Your task to perform on an android device: Clear the shopping cart on newegg.com. Search for "apple airpods pro" on newegg.com, select the first entry, add it to the cart, then select checkout. Image 0: 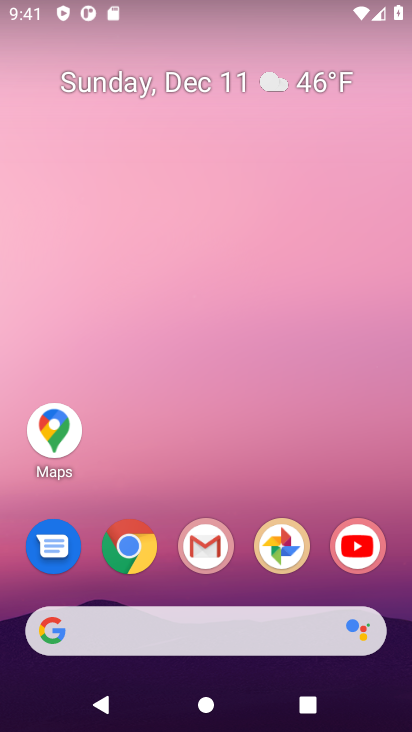
Step 0: click (132, 551)
Your task to perform on an android device: Clear the shopping cart on newegg.com. Search for "apple airpods pro" on newegg.com, select the first entry, add it to the cart, then select checkout. Image 1: 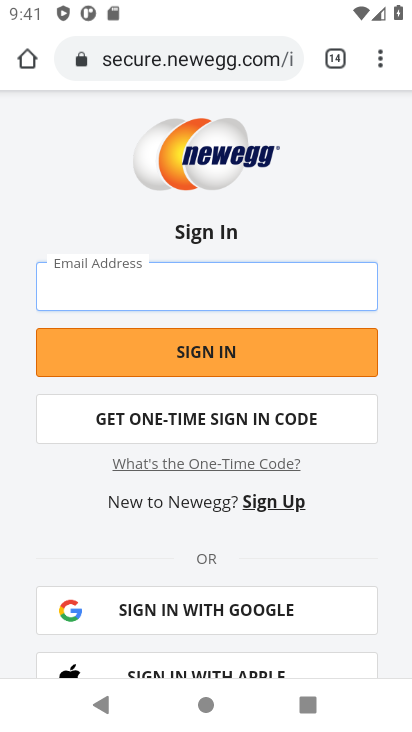
Step 1: click (179, 60)
Your task to perform on an android device: Clear the shopping cart on newegg.com. Search for "apple airpods pro" on newegg.com, select the first entry, add it to the cart, then select checkout. Image 2: 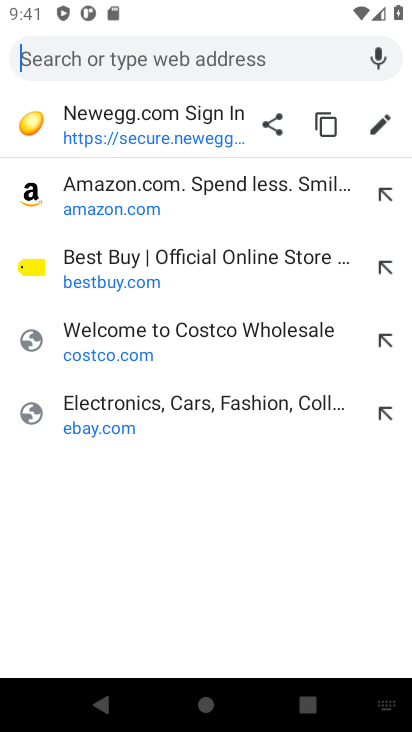
Step 2: type "newegg.com"
Your task to perform on an android device: Clear the shopping cart on newegg.com. Search for "apple airpods pro" on newegg.com, select the first entry, add it to the cart, then select checkout. Image 3: 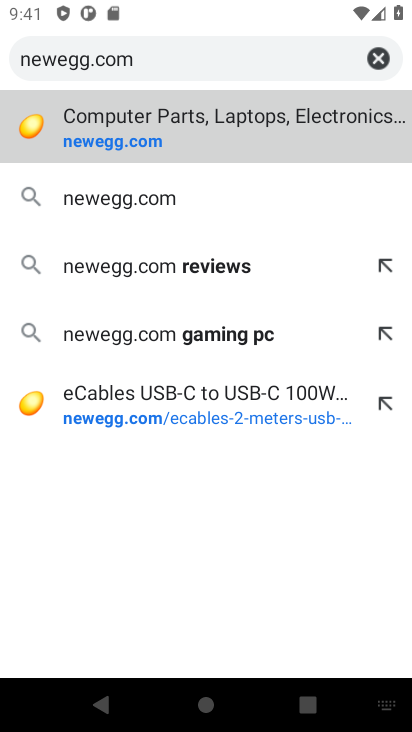
Step 3: click (85, 123)
Your task to perform on an android device: Clear the shopping cart on newegg.com. Search for "apple airpods pro" on newegg.com, select the first entry, add it to the cart, then select checkout. Image 4: 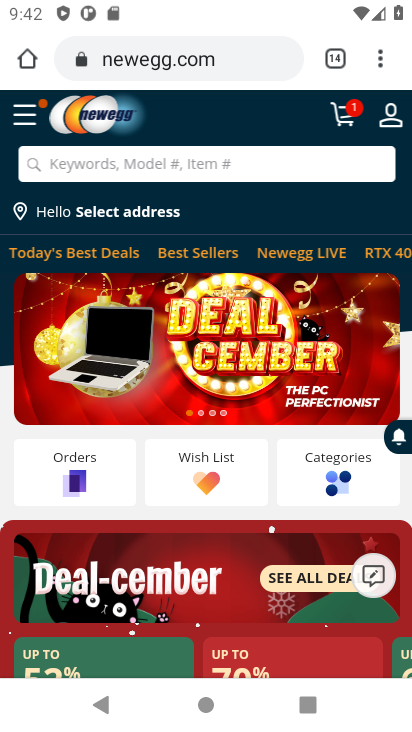
Step 4: click (346, 119)
Your task to perform on an android device: Clear the shopping cart on newegg.com. Search for "apple airpods pro" on newegg.com, select the first entry, add it to the cart, then select checkout. Image 5: 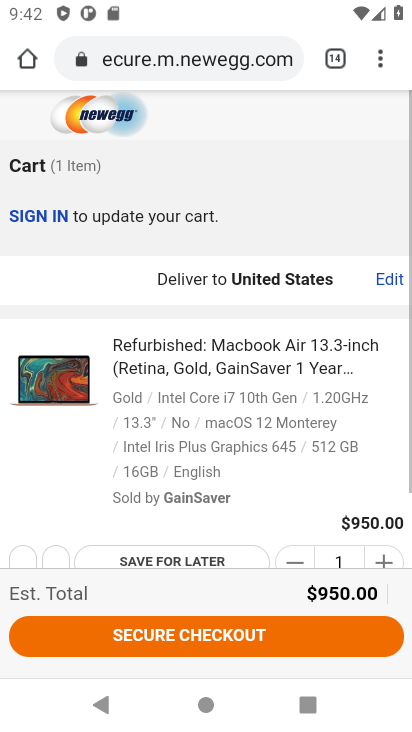
Step 5: drag from (117, 516) to (120, 331)
Your task to perform on an android device: Clear the shopping cart on newegg.com. Search for "apple airpods pro" on newegg.com, select the first entry, add it to the cart, then select checkout. Image 6: 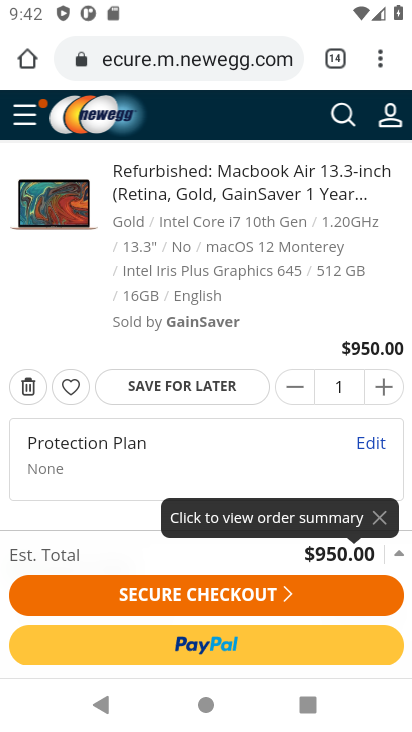
Step 6: click (26, 387)
Your task to perform on an android device: Clear the shopping cart on newegg.com. Search for "apple airpods pro" on newegg.com, select the first entry, add it to the cart, then select checkout. Image 7: 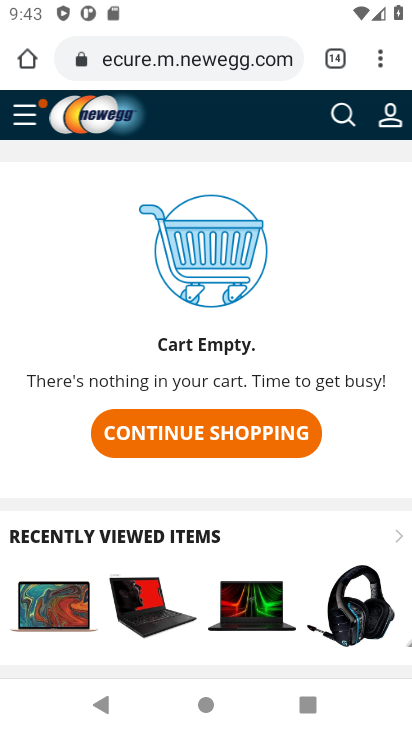
Step 7: click (338, 121)
Your task to perform on an android device: Clear the shopping cart on newegg.com. Search for "apple airpods pro" on newegg.com, select the first entry, add it to the cart, then select checkout. Image 8: 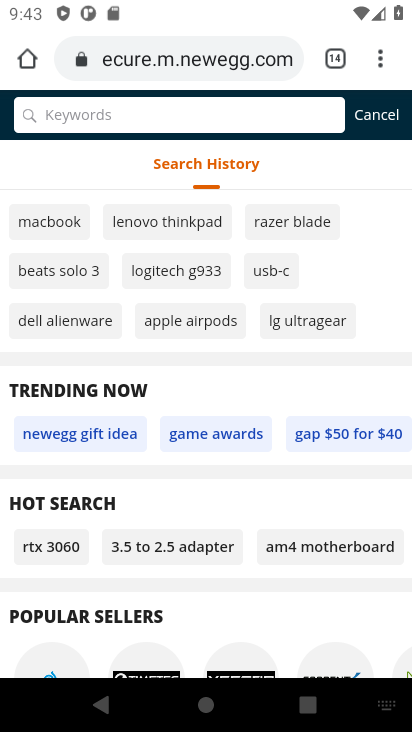
Step 8: type "apple airpods pro"
Your task to perform on an android device: Clear the shopping cart on newegg.com. Search for "apple airpods pro" on newegg.com, select the first entry, add it to the cart, then select checkout. Image 9: 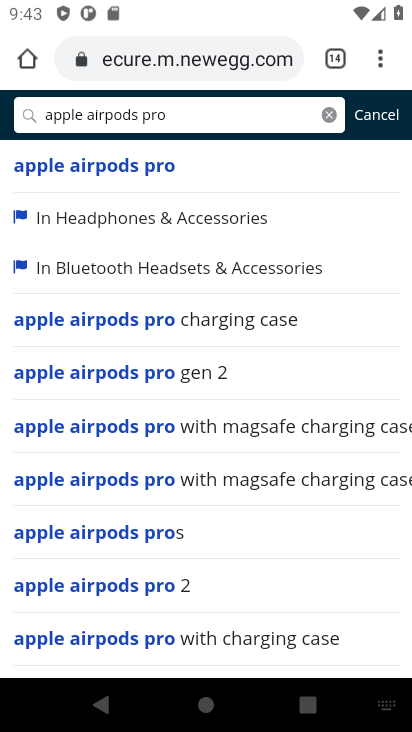
Step 9: click (67, 170)
Your task to perform on an android device: Clear the shopping cart on newegg.com. Search for "apple airpods pro" on newegg.com, select the first entry, add it to the cart, then select checkout. Image 10: 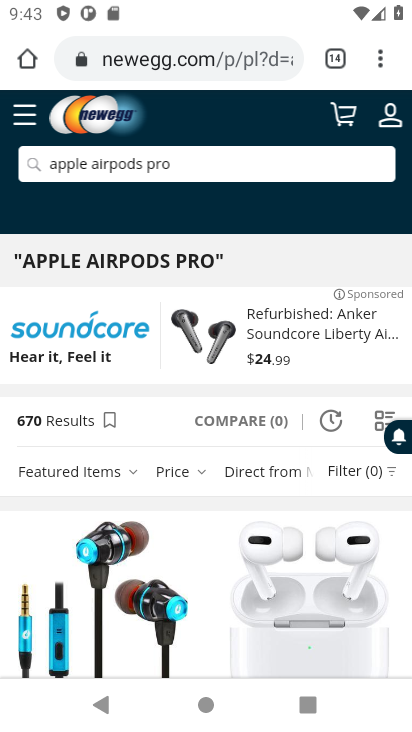
Step 10: task complete